Your task to perform on an android device: empty trash in google photos Image 0: 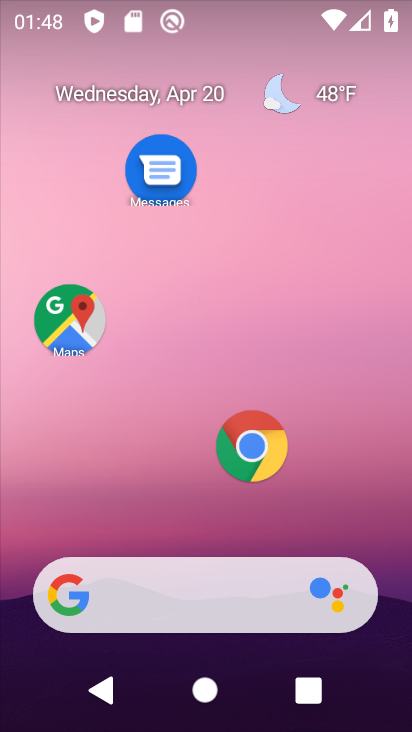
Step 0: drag from (211, 538) to (216, 143)
Your task to perform on an android device: empty trash in google photos Image 1: 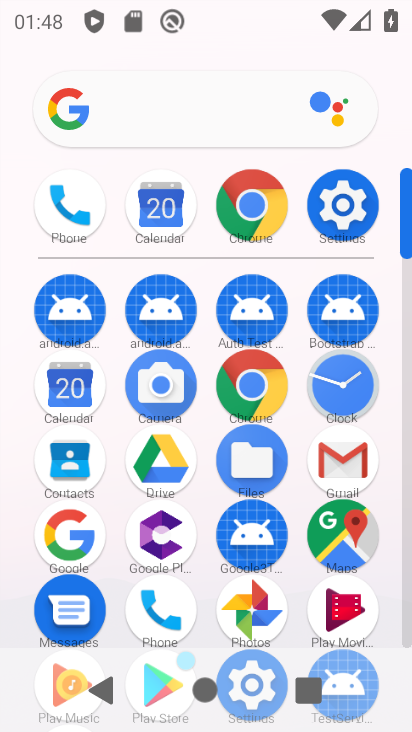
Step 1: click (248, 605)
Your task to perform on an android device: empty trash in google photos Image 2: 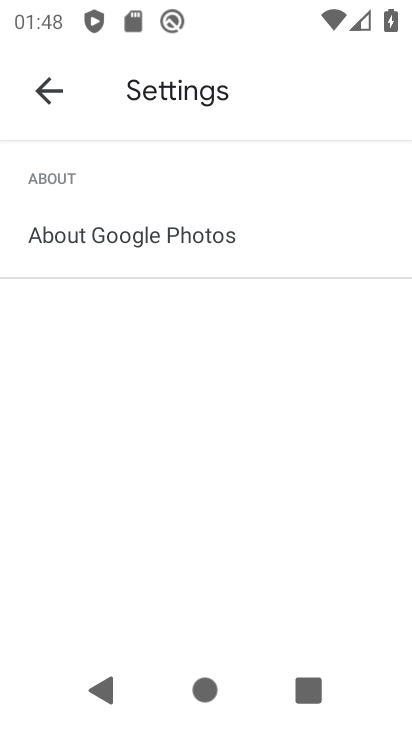
Step 2: click (57, 93)
Your task to perform on an android device: empty trash in google photos Image 3: 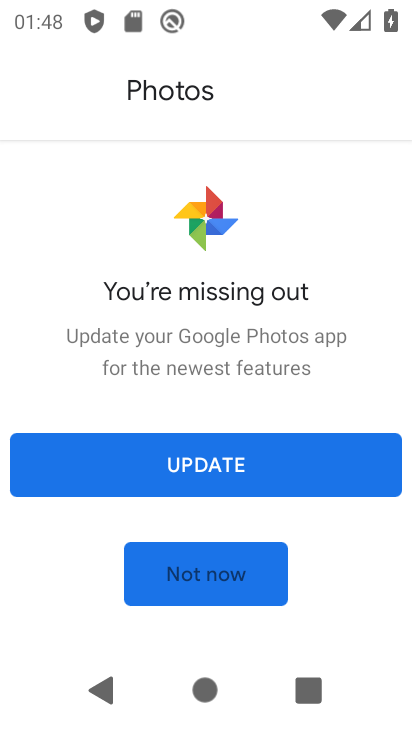
Step 3: click (208, 465)
Your task to perform on an android device: empty trash in google photos Image 4: 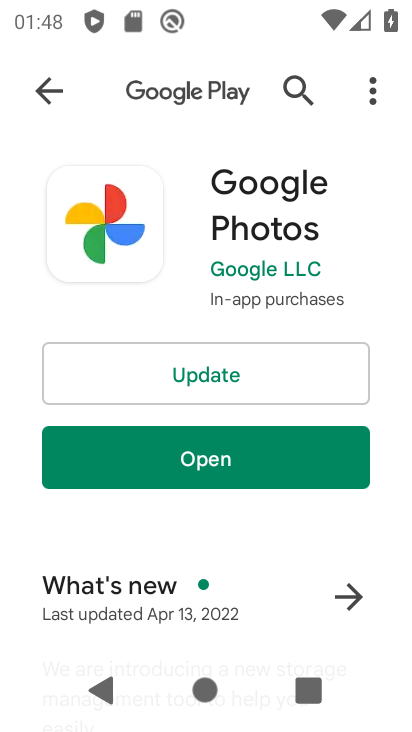
Step 4: click (209, 365)
Your task to perform on an android device: empty trash in google photos Image 5: 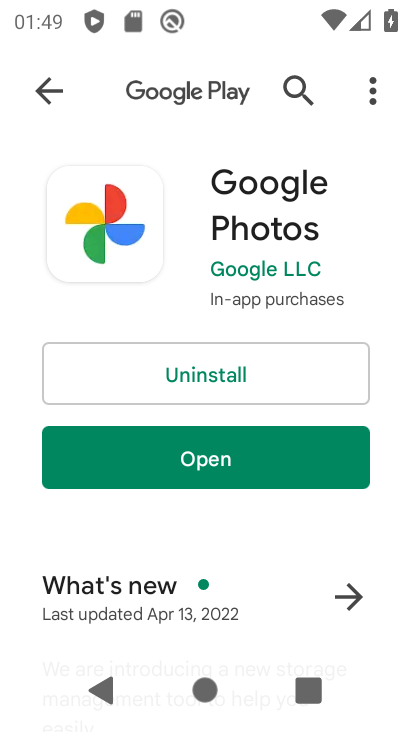
Step 5: click (206, 462)
Your task to perform on an android device: empty trash in google photos Image 6: 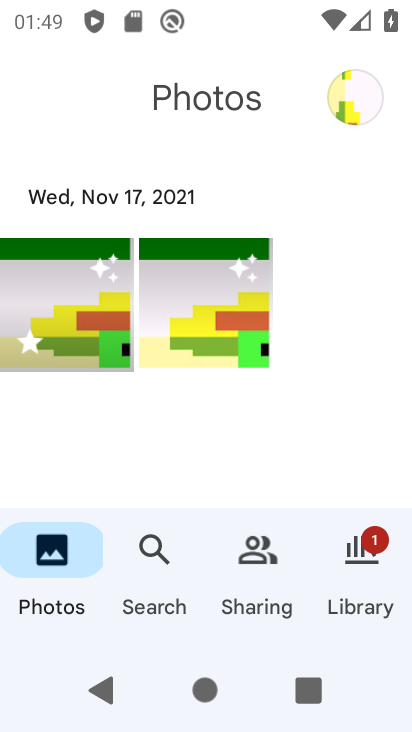
Step 6: click (357, 552)
Your task to perform on an android device: empty trash in google photos Image 7: 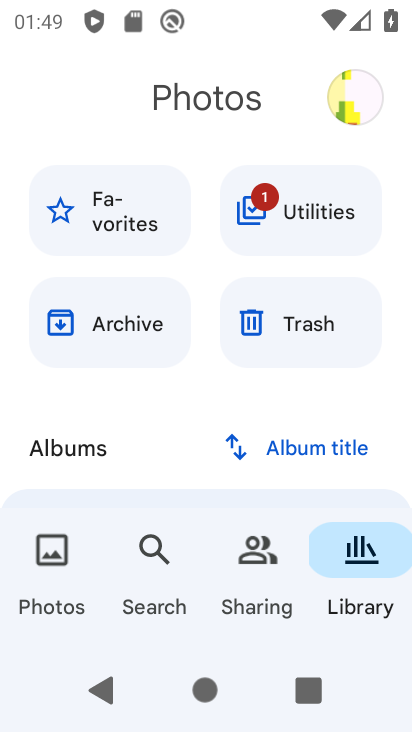
Step 7: click (276, 324)
Your task to perform on an android device: empty trash in google photos Image 8: 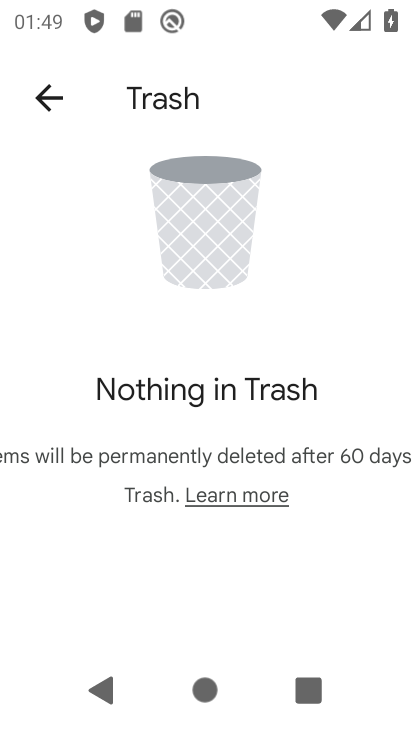
Step 8: task complete